Your task to perform on an android device: Open location settings Image 0: 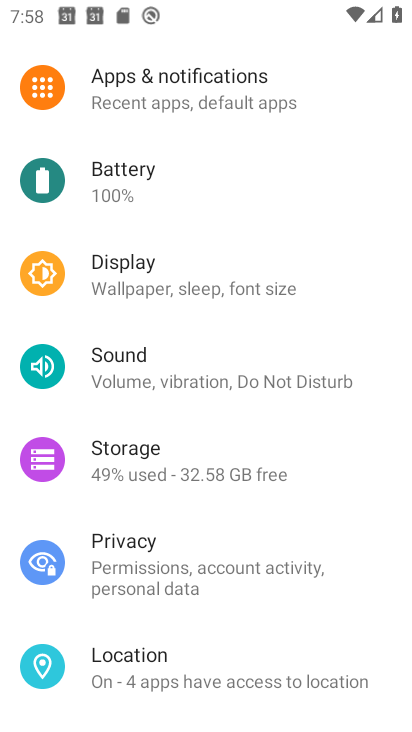
Step 0: click (251, 669)
Your task to perform on an android device: Open location settings Image 1: 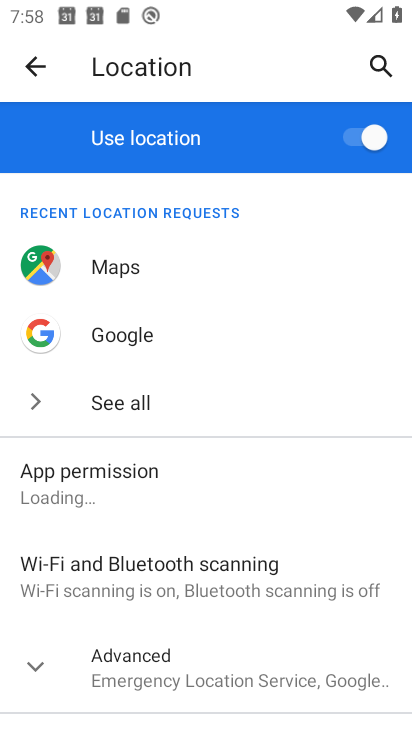
Step 1: task complete